Your task to perform on an android device: Open Google Image 0: 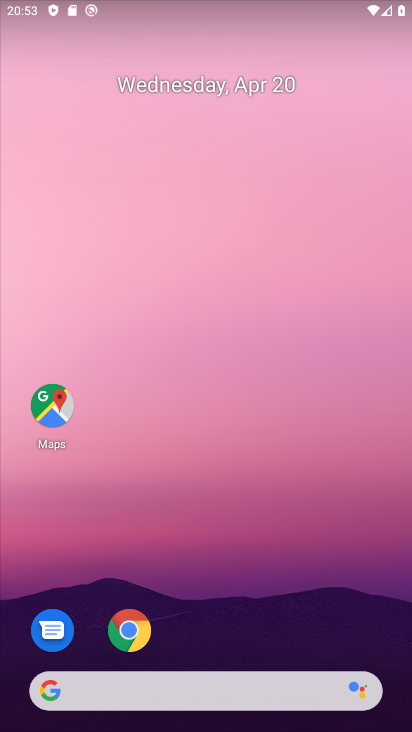
Step 0: drag from (238, 579) to (210, 95)
Your task to perform on an android device: Open Google Image 1: 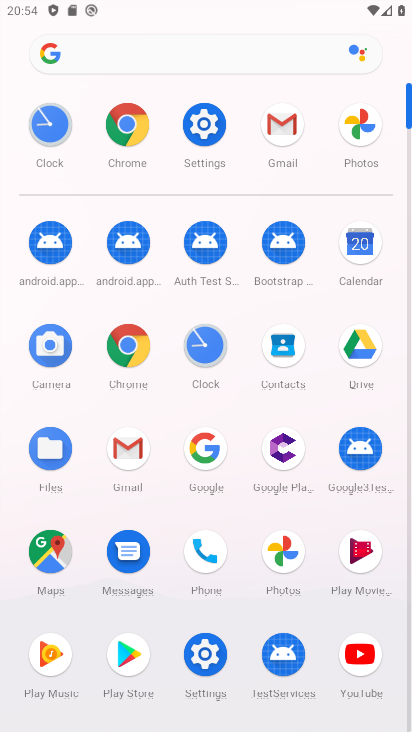
Step 1: click (203, 448)
Your task to perform on an android device: Open Google Image 2: 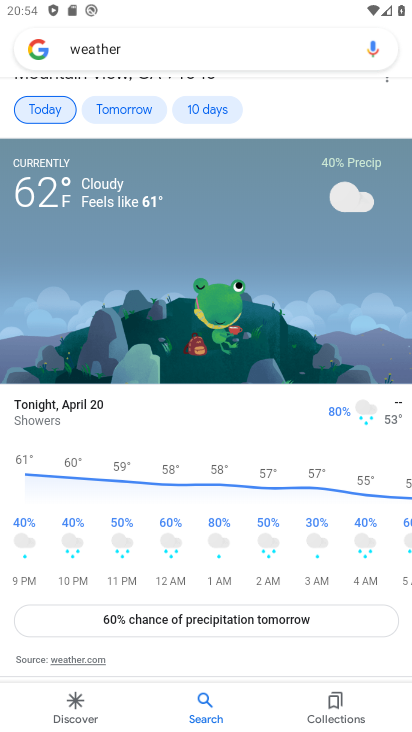
Step 2: task complete